Your task to perform on an android device: Open Google Chrome and click the shortcut for Amazon.com Image 0: 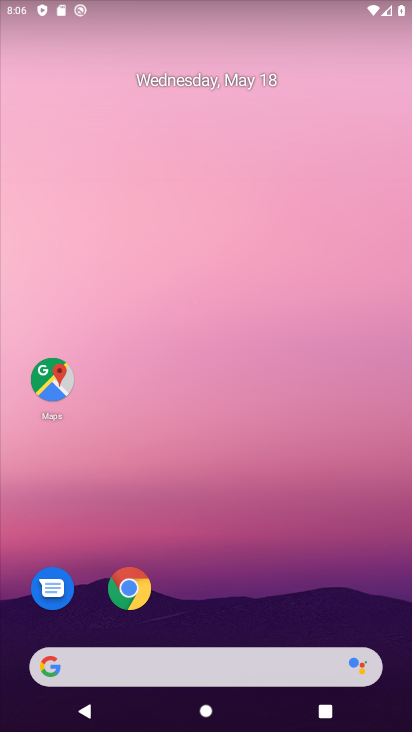
Step 0: click (300, 576)
Your task to perform on an android device: Open Google Chrome and click the shortcut for Amazon.com Image 1: 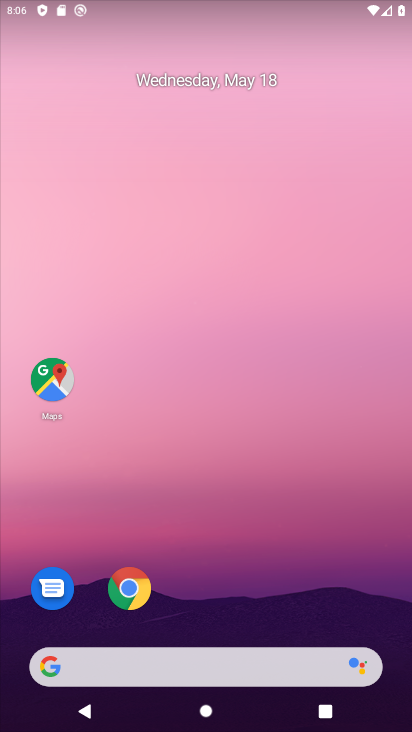
Step 1: click (136, 585)
Your task to perform on an android device: Open Google Chrome and click the shortcut for Amazon.com Image 2: 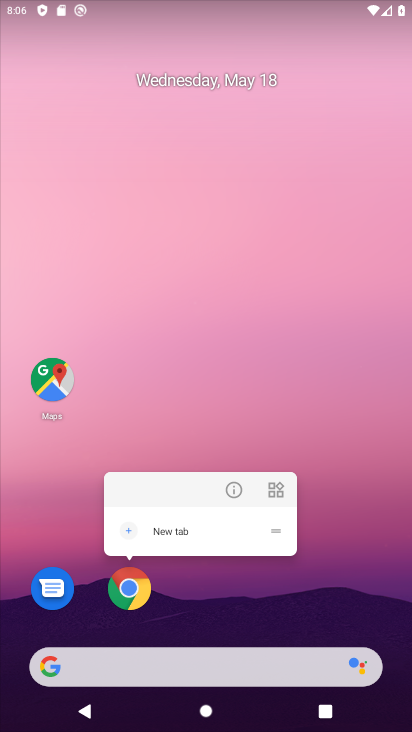
Step 2: click (136, 585)
Your task to perform on an android device: Open Google Chrome and click the shortcut for Amazon.com Image 3: 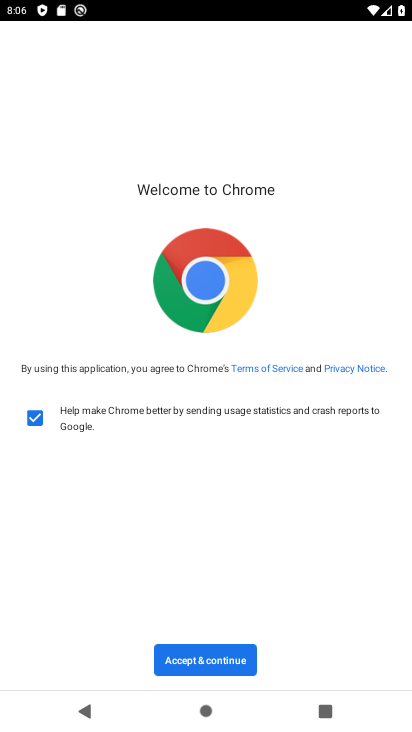
Step 3: click (209, 661)
Your task to perform on an android device: Open Google Chrome and click the shortcut for Amazon.com Image 4: 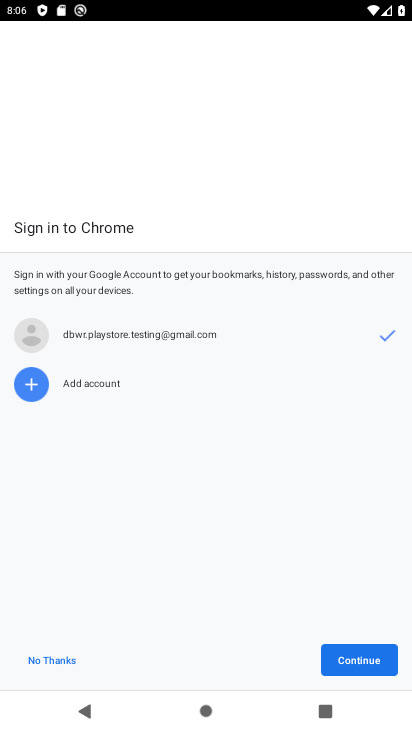
Step 4: click (32, 663)
Your task to perform on an android device: Open Google Chrome and click the shortcut for Amazon.com Image 5: 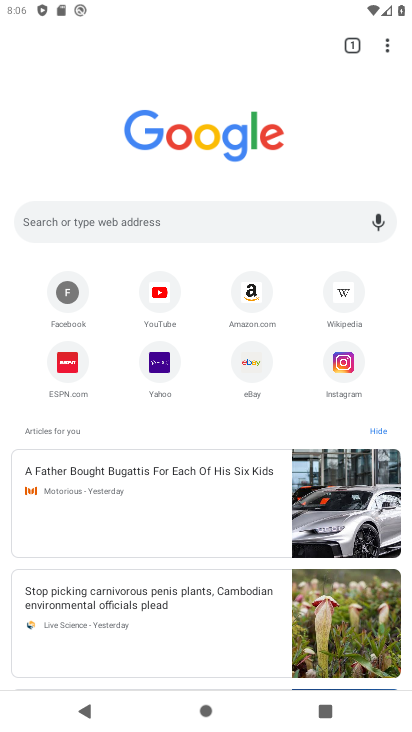
Step 5: click (245, 296)
Your task to perform on an android device: Open Google Chrome and click the shortcut for Amazon.com Image 6: 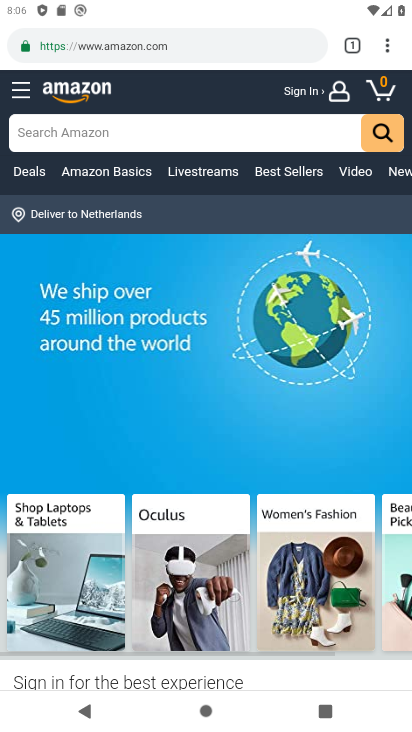
Step 6: task complete